Your task to perform on an android device: Open Yahoo.com Image 0: 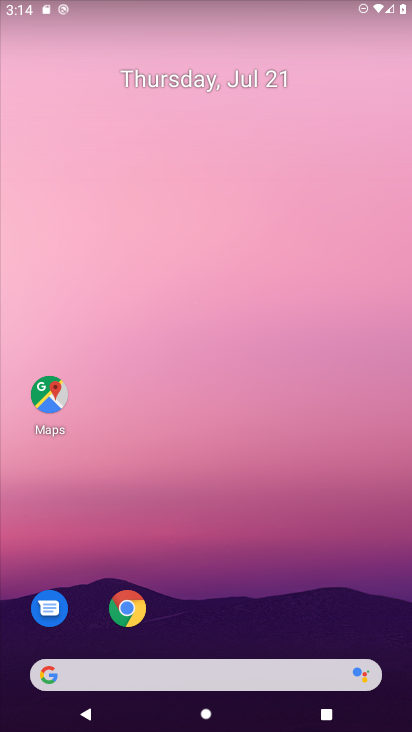
Step 0: click (132, 614)
Your task to perform on an android device: Open Yahoo.com Image 1: 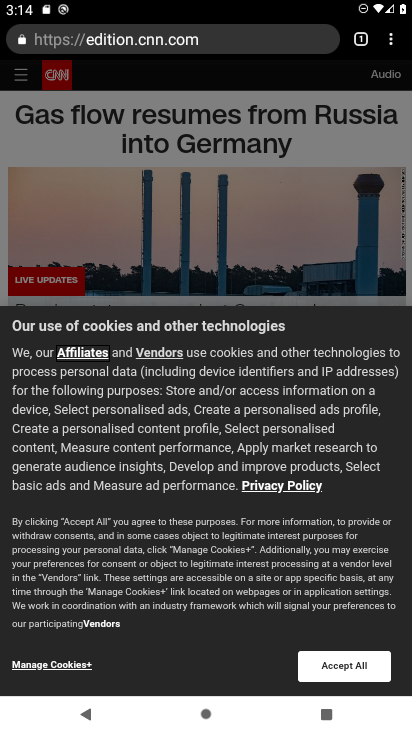
Step 1: click (367, 46)
Your task to perform on an android device: Open Yahoo.com Image 2: 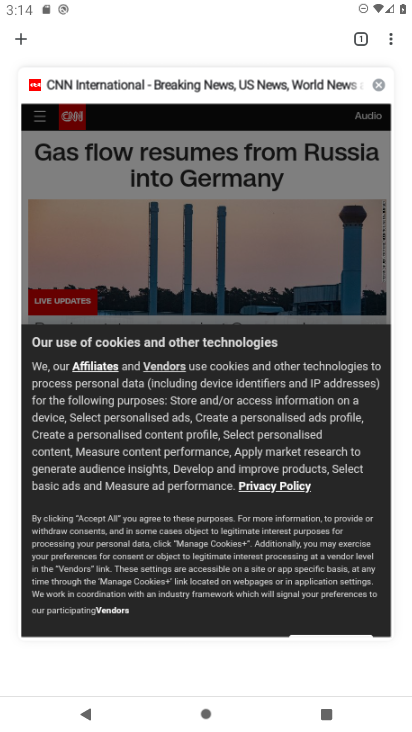
Step 2: click (27, 39)
Your task to perform on an android device: Open Yahoo.com Image 3: 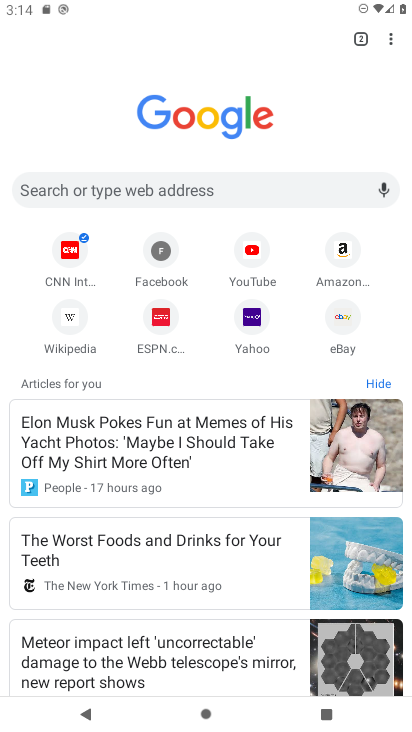
Step 3: click (267, 351)
Your task to perform on an android device: Open Yahoo.com Image 4: 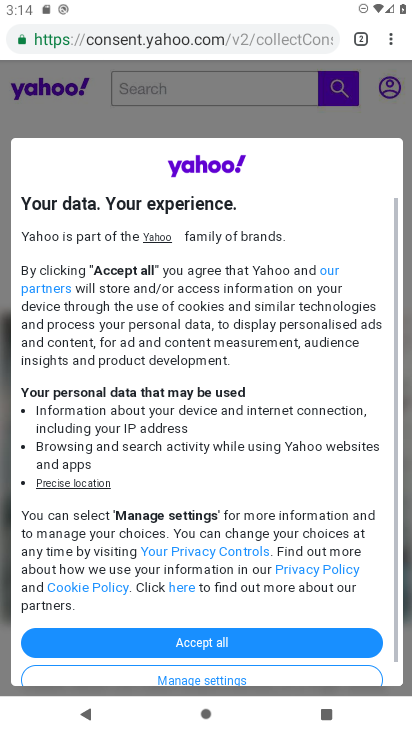
Step 4: task complete